Your task to perform on an android device: Search for sushi restaurants on Maps Image 0: 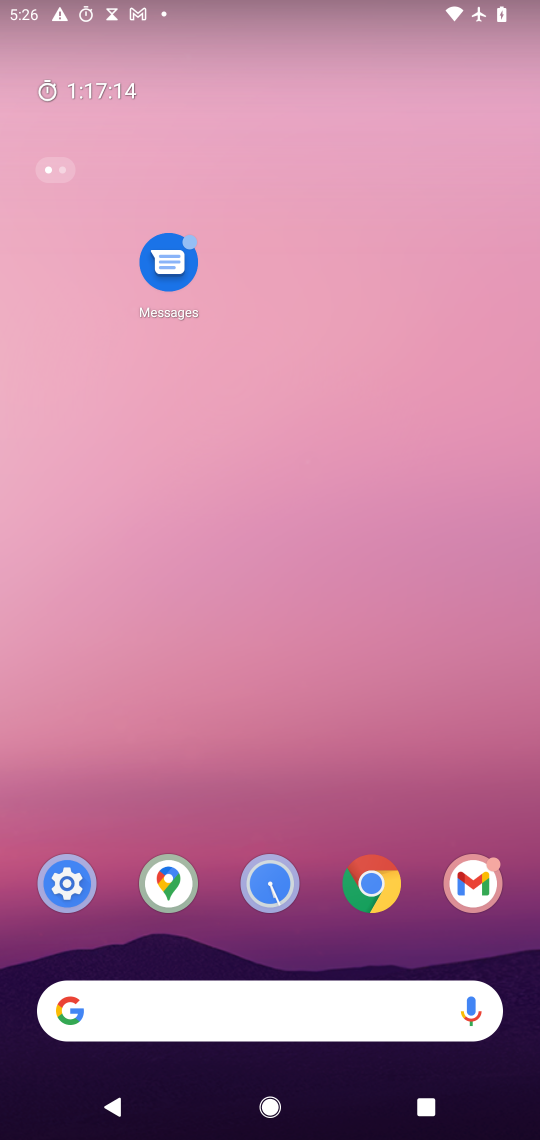
Step 0: drag from (312, 904) to (319, 61)
Your task to perform on an android device: Search for sushi restaurants on Maps Image 1: 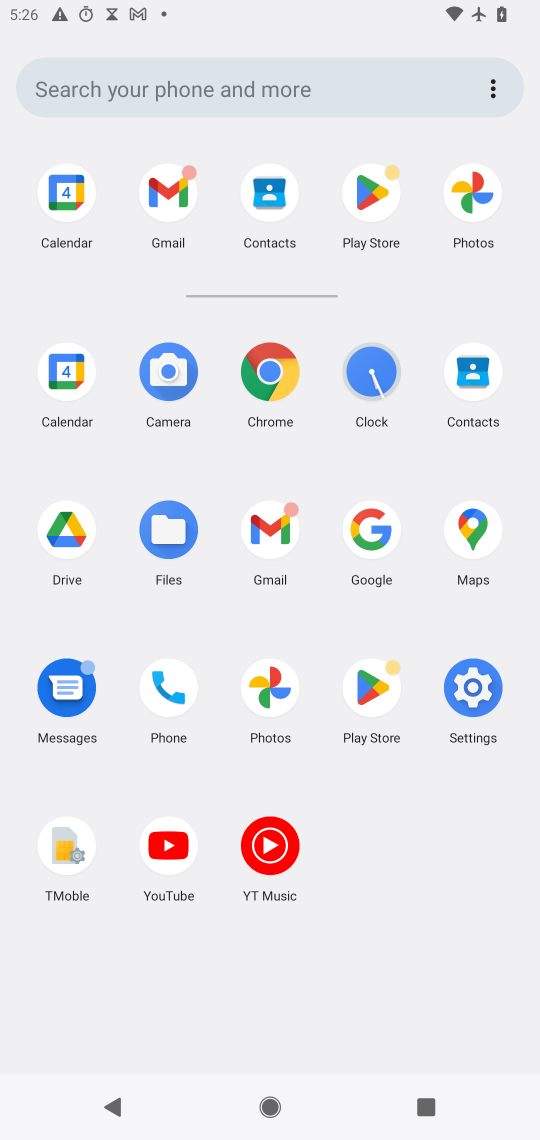
Step 1: click (460, 528)
Your task to perform on an android device: Search for sushi restaurants on Maps Image 2: 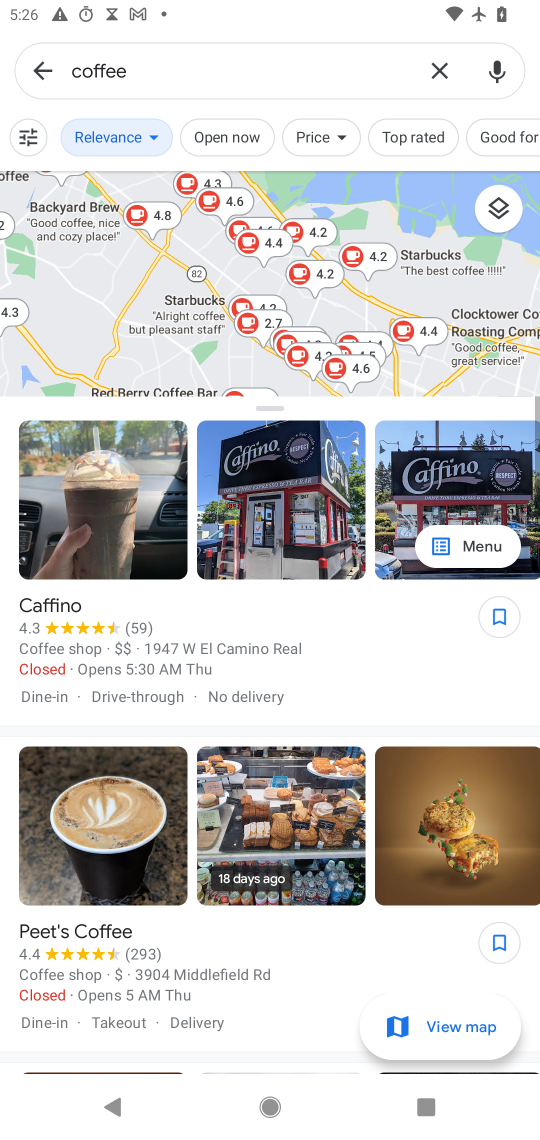
Step 2: click (432, 65)
Your task to perform on an android device: Search for sushi restaurants on Maps Image 3: 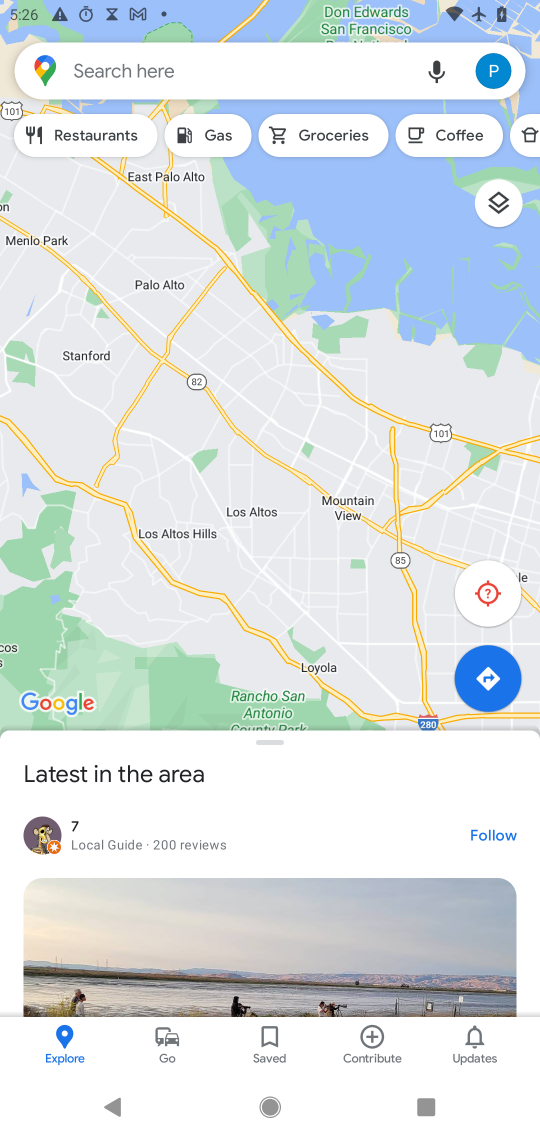
Step 3: click (235, 67)
Your task to perform on an android device: Search for sushi restaurants on Maps Image 4: 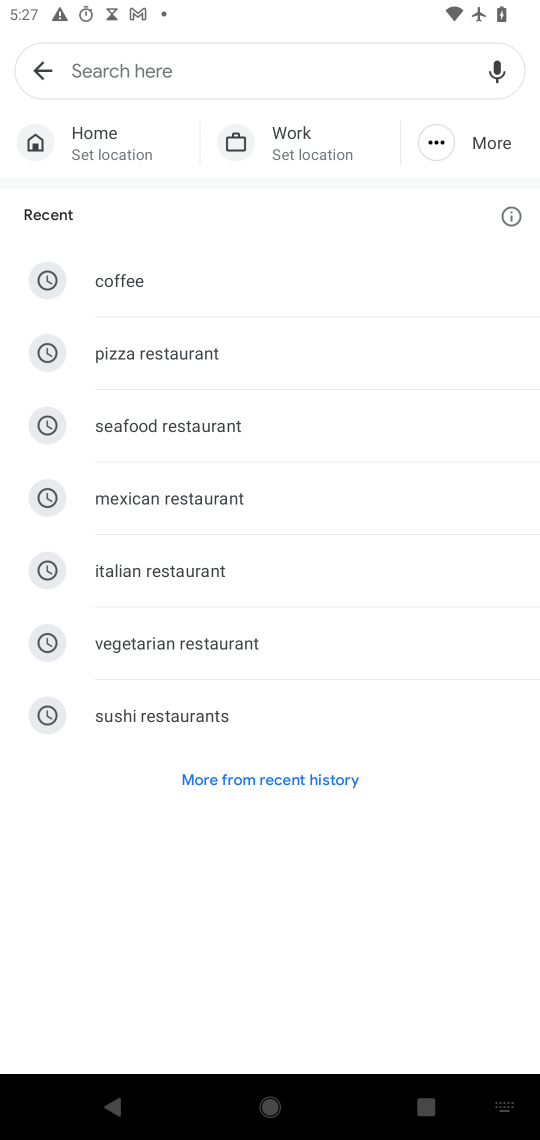
Step 4: type "sushi restaurants"
Your task to perform on an android device: Search for sushi restaurants on Maps Image 5: 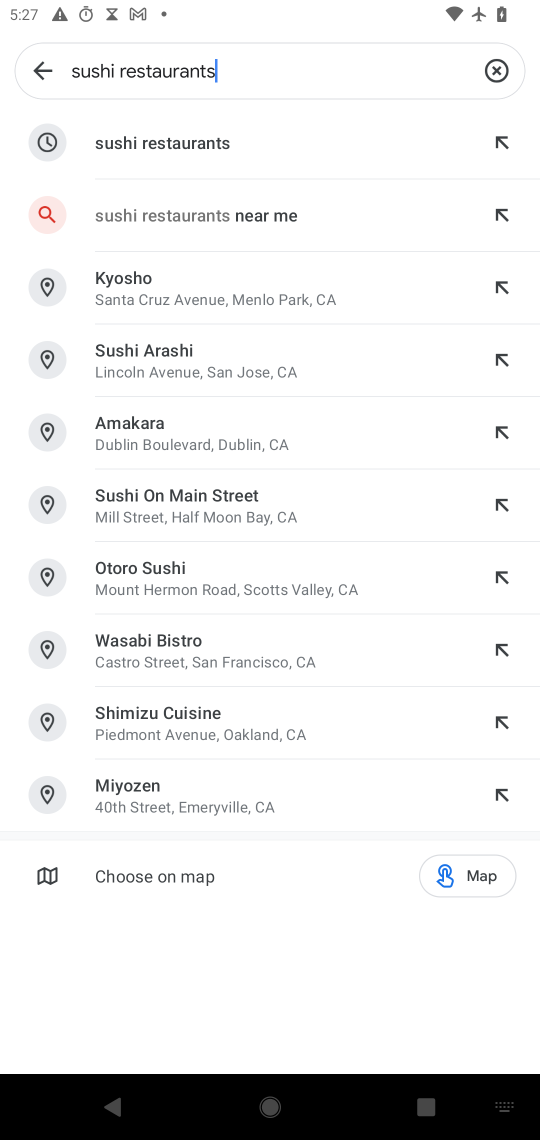
Step 5: click (190, 141)
Your task to perform on an android device: Search for sushi restaurants on Maps Image 6: 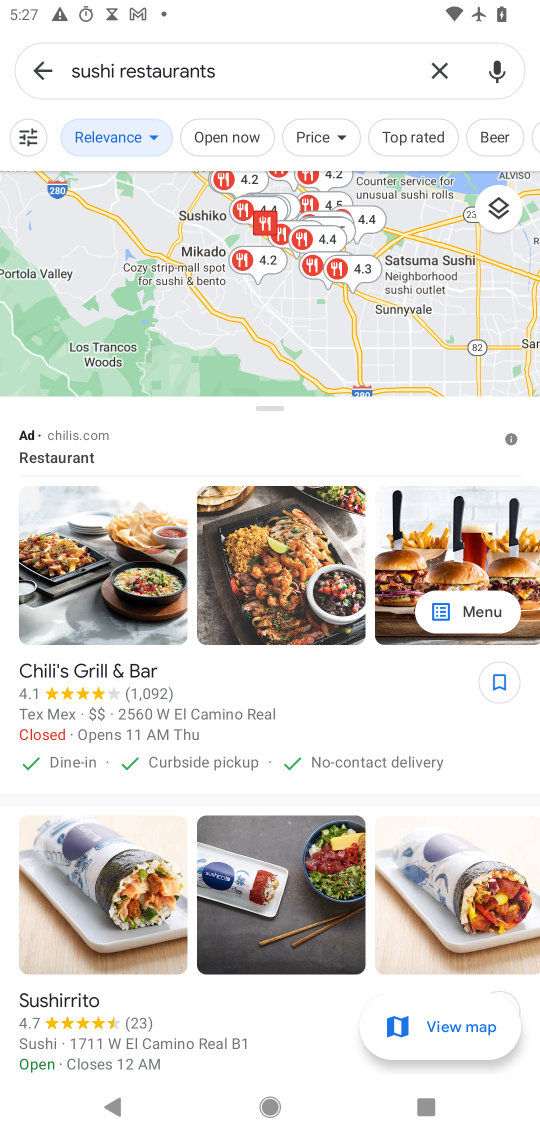
Step 6: task complete